Your task to perform on an android device: What's the weather? Image 0: 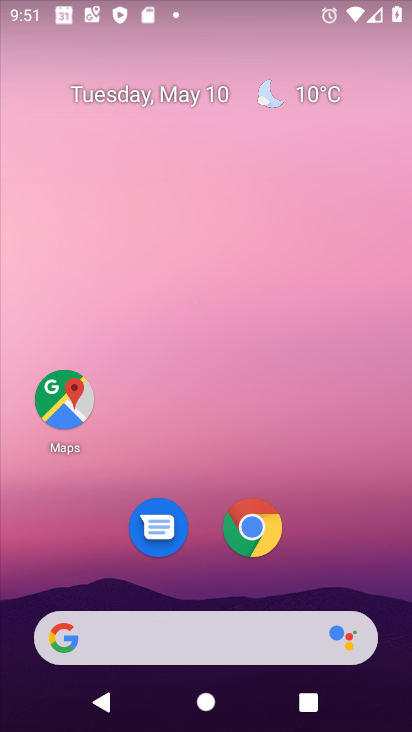
Step 0: click (268, 92)
Your task to perform on an android device: What's the weather? Image 1: 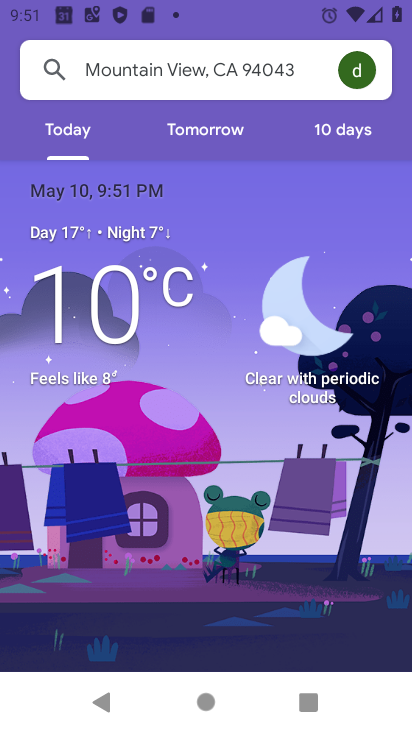
Step 1: task complete